Your task to perform on an android device: Look up the best rated bike on Walmart Image 0: 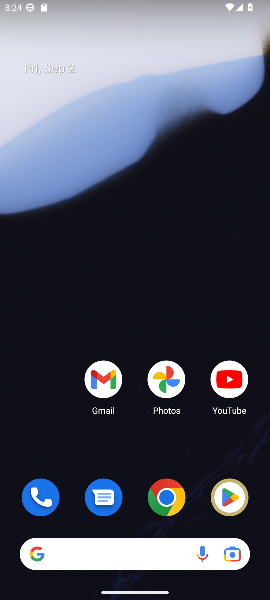
Step 0: drag from (125, 475) to (120, 133)
Your task to perform on an android device: Look up the best rated bike on Walmart Image 1: 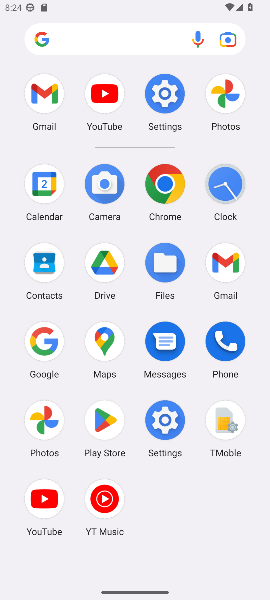
Step 1: click (45, 341)
Your task to perform on an android device: Look up the best rated bike on Walmart Image 2: 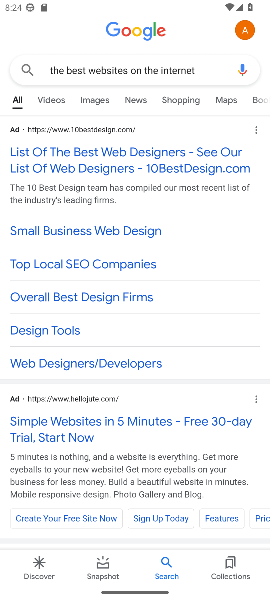
Step 2: click (201, 73)
Your task to perform on an android device: Look up the best rated bike on Walmart Image 3: 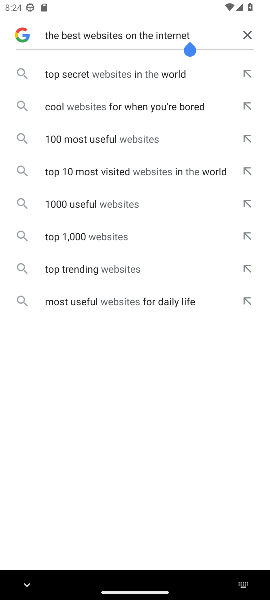
Step 3: click (248, 35)
Your task to perform on an android device: Look up the best rated bike on Walmart Image 4: 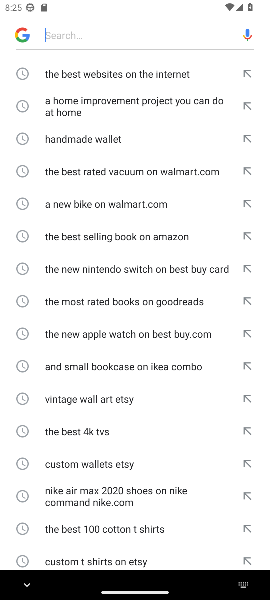
Step 4: type "the best rated bike on Walmart"
Your task to perform on an android device: Look up the best rated bike on Walmart Image 5: 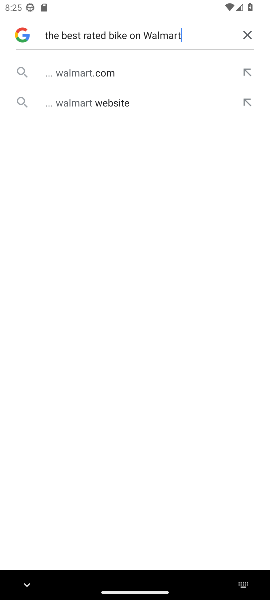
Step 5: click (105, 74)
Your task to perform on an android device: Look up the best rated bike on Walmart Image 6: 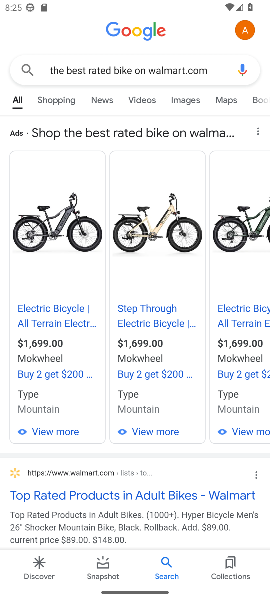
Step 6: task complete